Your task to perform on an android device: Go to display settings Image 0: 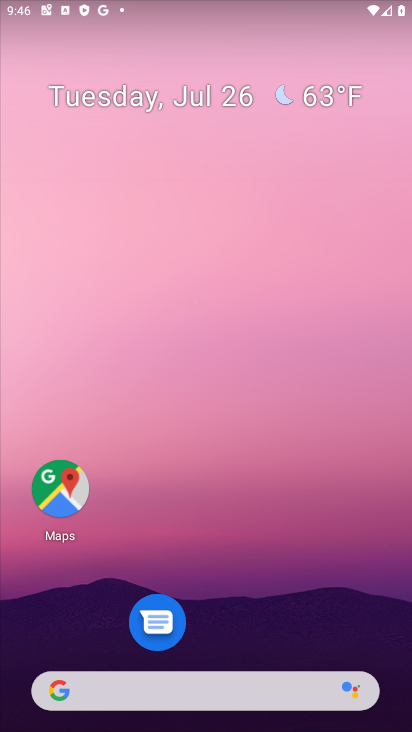
Step 0: drag from (255, 569) to (216, 42)
Your task to perform on an android device: Go to display settings Image 1: 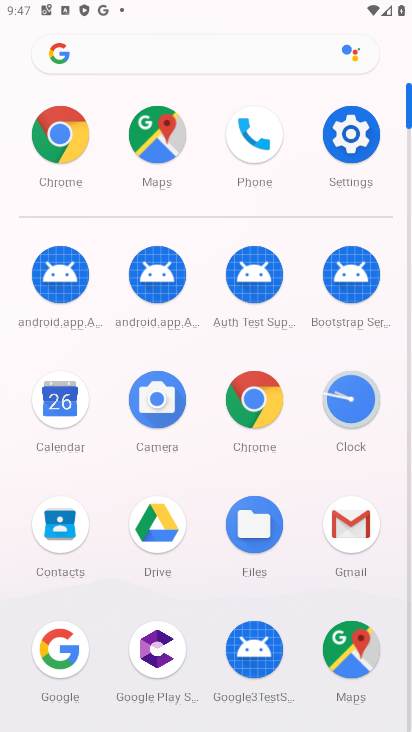
Step 1: click (372, 145)
Your task to perform on an android device: Go to display settings Image 2: 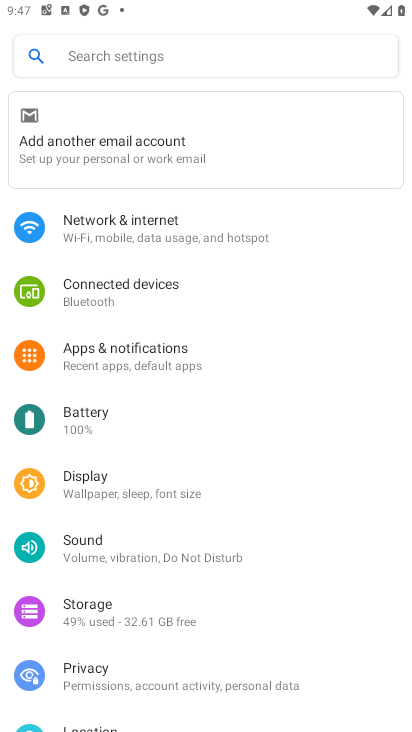
Step 2: click (144, 505)
Your task to perform on an android device: Go to display settings Image 3: 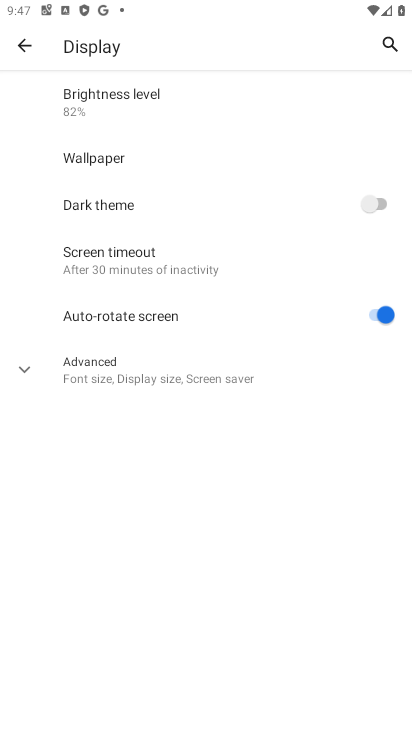
Step 3: task complete